Your task to perform on an android device: turn on the 12-hour format for clock Image 0: 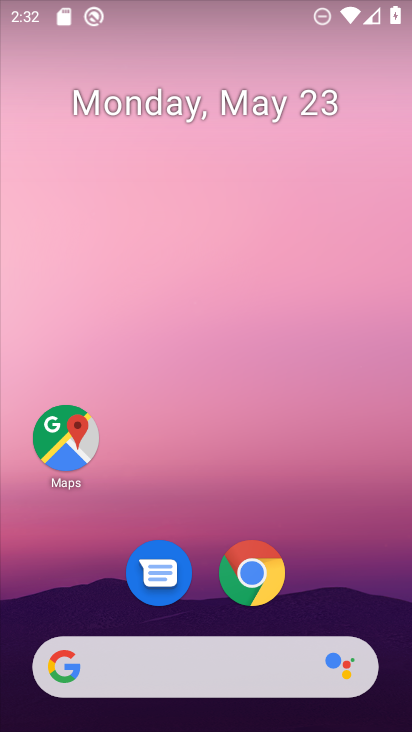
Step 0: drag from (364, 540) to (319, 47)
Your task to perform on an android device: turn on the 12-hour format for clock Image 1: 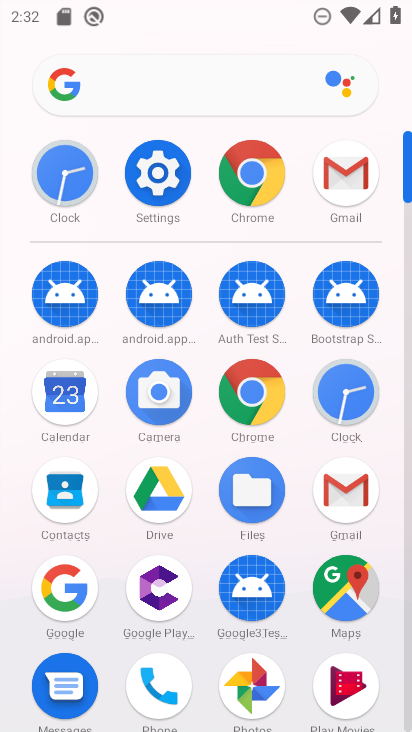
Step 1: click (65, 165)
Your task to perform on an android device: turn on the 12-hour format for clock Image 2: 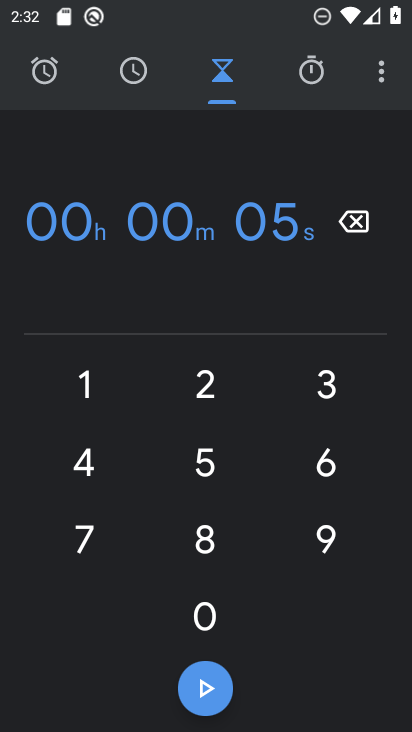
Step 2: click (388, 67)
Your task to perform on an android device: turn on the 12-hour format for clock Image 3: 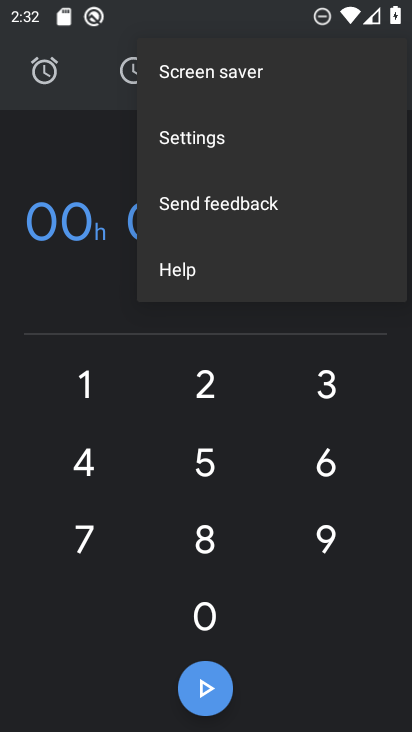
Step 3: click (267, 155)
Your task to perform on an android device: turn on the 12-hour format for clock Image 4: 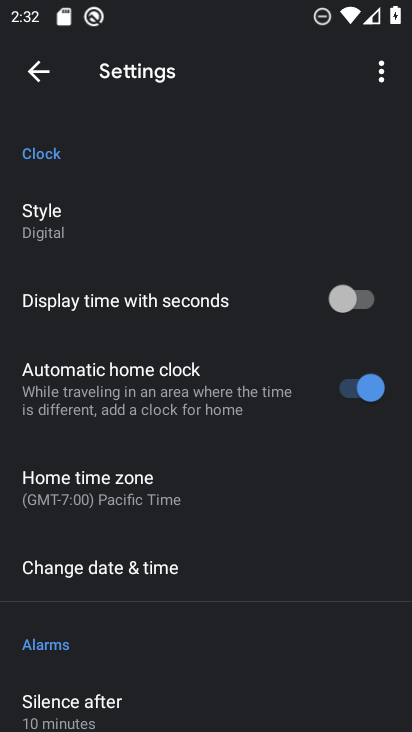
Step 4: click (113, 569)
Your task to perform on an android device: turn on the 12-hour format for clock Image 5: 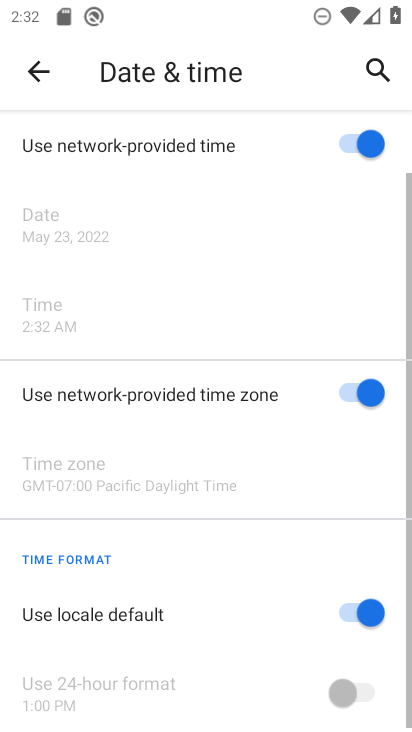
Step 5: task complete